Your task to perform on an android device: Open eBay Image 0: 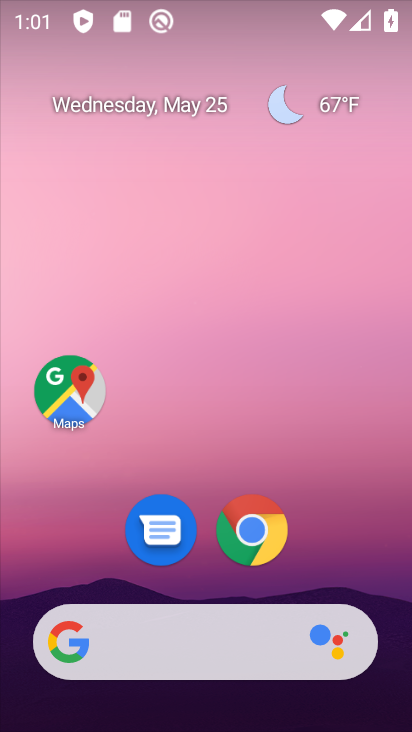
Step 0: click (254, 526)
Your task to perform on an android device: Open eBay Image 1: 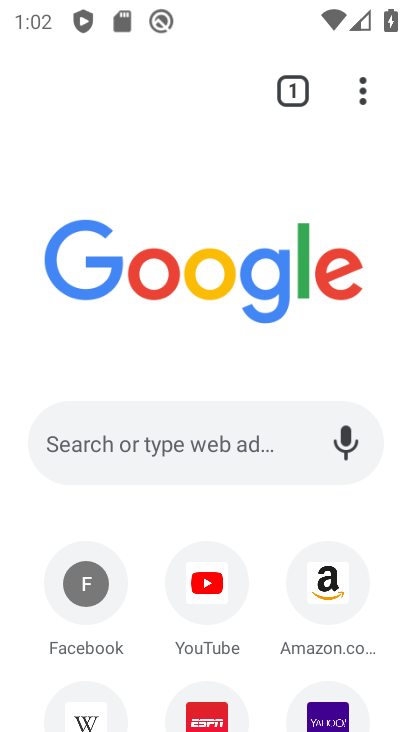
Step 1: click (213, 449)
Your task to perform on an android device: Open eBay Image 2: 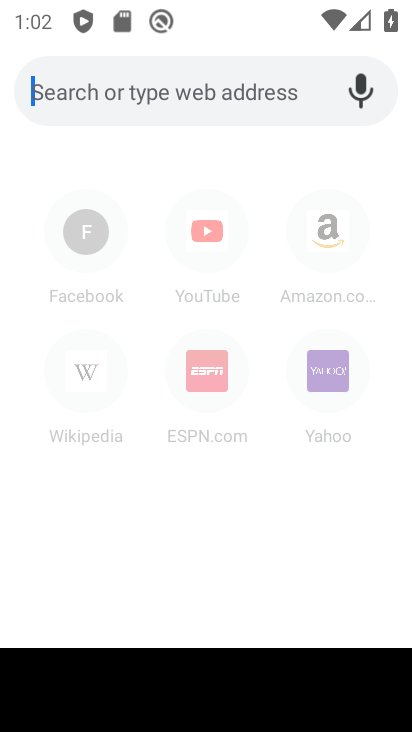
Step 2: type "eBay"
Your task to perform on an android device: Open eBay Image 3: 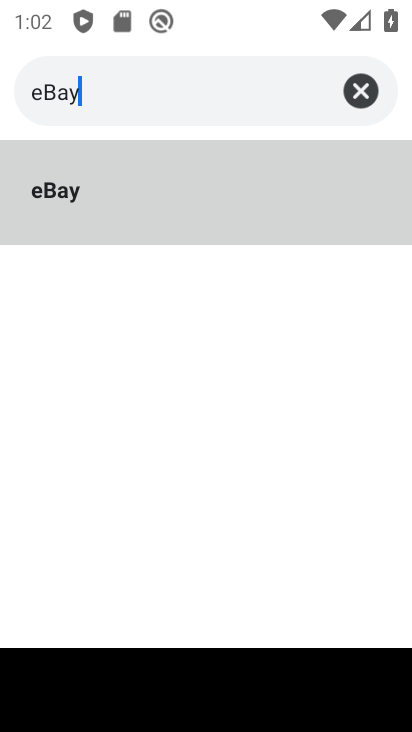
Step 3: type ""
Your task to perform on an android device: Open eBay Image 4: 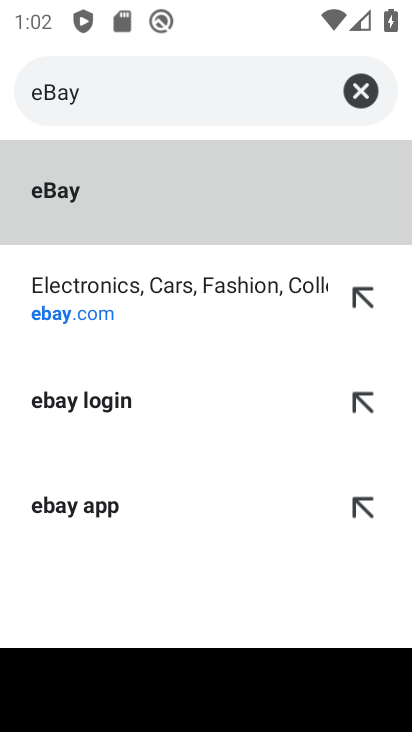
Step 4: click (65, 191)
Your task to perform on an android device: Open eBay Image 5: 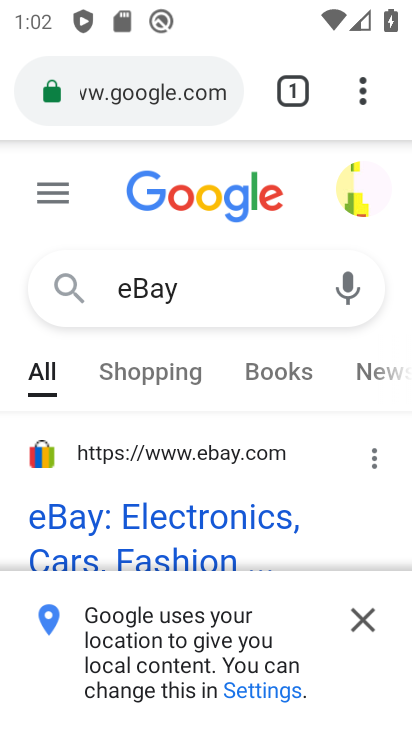
Step 5: click (366, 620)
Your task to perform on an android device: Open eBay Image 6: 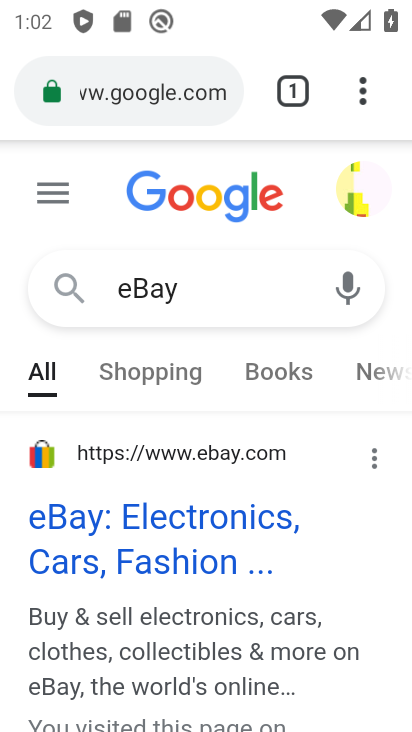
Step 6: click (189, 547)
Your task to perform on an android device: Open eBay Image 7: 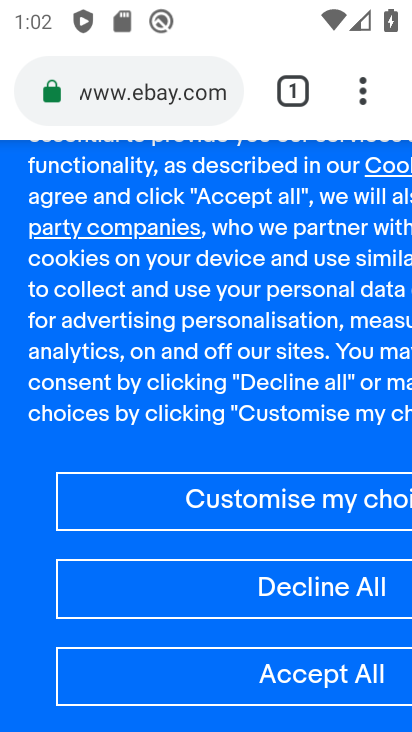
Step 7: task complete